Your task to perform on an android device: delete a single message in the gmail app Image 0: 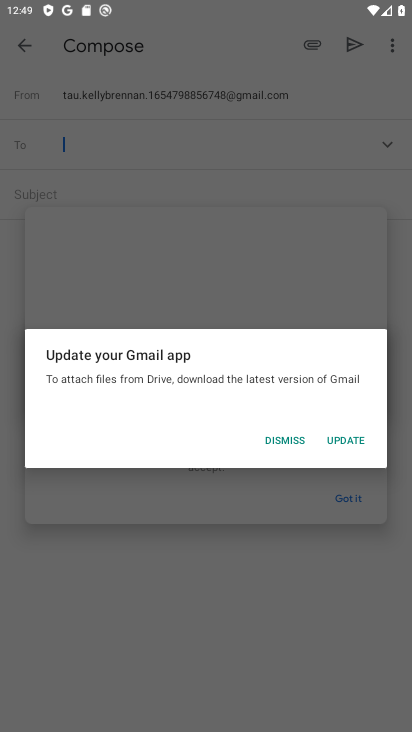
Step 0: press home button
Your task to perform on an android device: delete a single message in the gmail app Image 1: 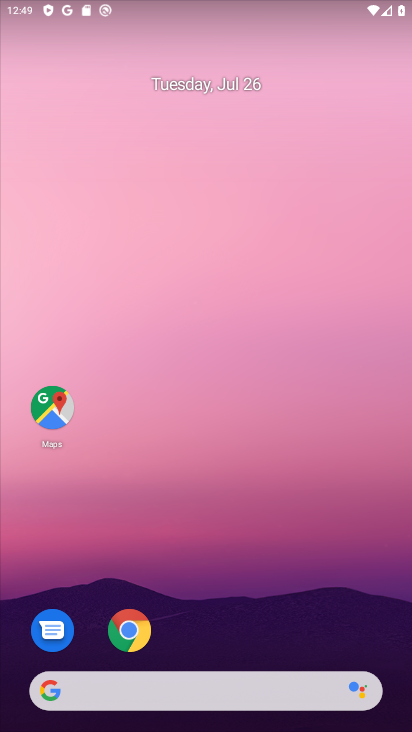
Step 1: drag from (200, 284) to (200, 61)
Your task to perform on an android device: delete a single message in the gmail app Image 2: 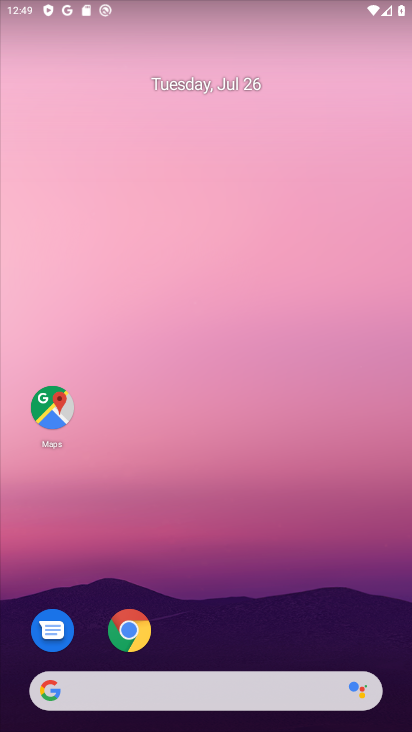
Step 2: drag from (206, 318) to (224, 110)
Your task to perform on an android device: delete a single message in the gmail app Image 3: 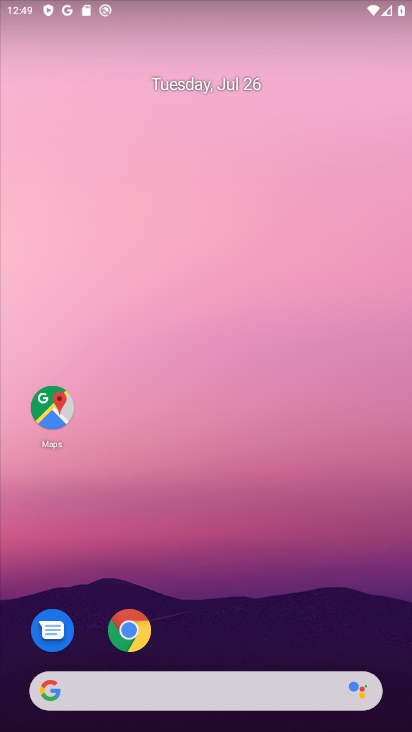
Step 3: drag from (201, 618) to (233, 85)
Your task to perform on an android device: delete a single message in the gmail app Image 4: 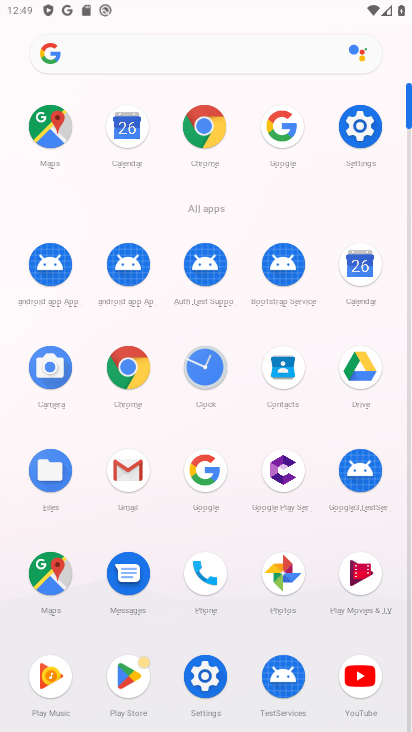
Step 4: click (130, 482)
Your task to perform on an android device: delete a single message in the gmail app Image 5: 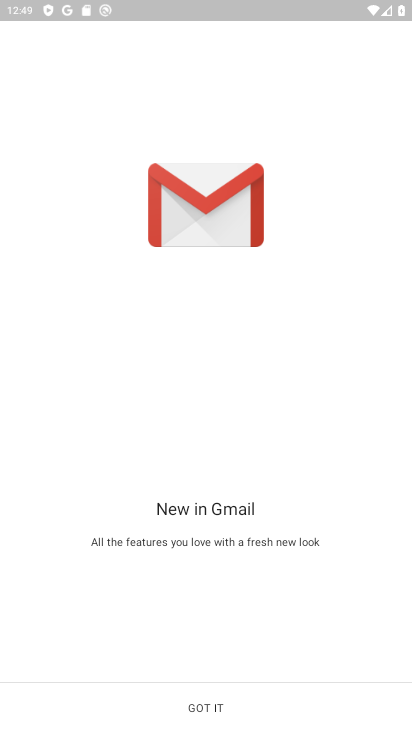
Step 5: click (216, 699)
Your task to perform on an android device: delete a single message in the gmail app Image 6: 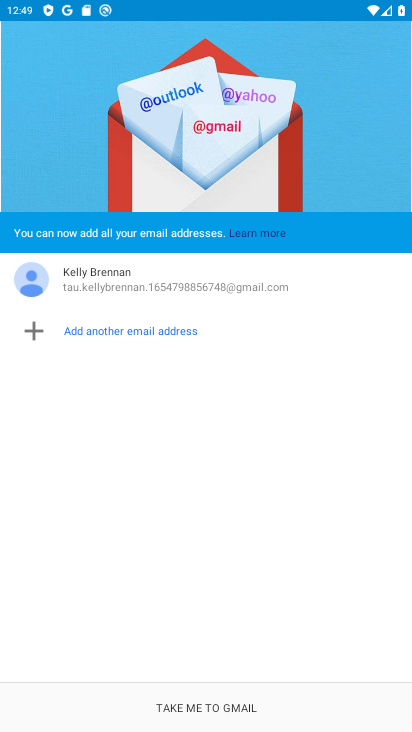
Step 6: click (216, 699)
Your task to perform on an android device: delete a single message in the gmail app Image 7: 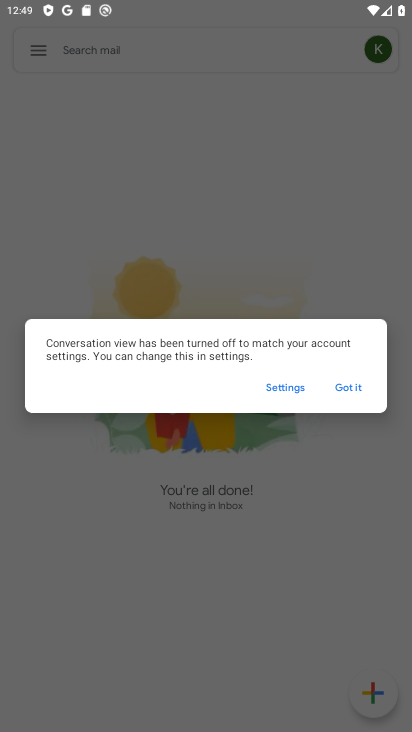
Step 7: click (353, 384)
Your task to perform on an android device: delete a single message in the gmail app Image 8: 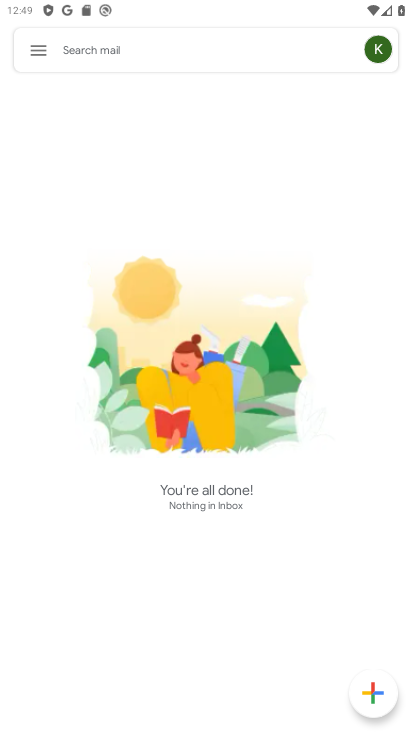
Step 8: click (37, 42)
Your task to perform on an android device: delete a single message in the gmail app Image 9: 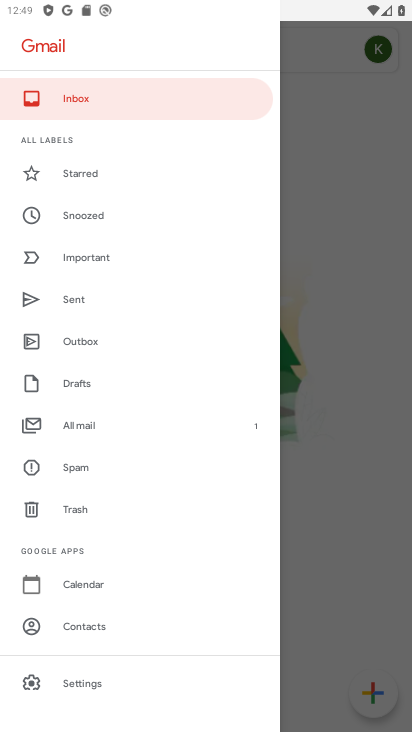
Step 9: click (89, 430)
Your task to perform on an android device: delete a single message in the gmail app Image 10: 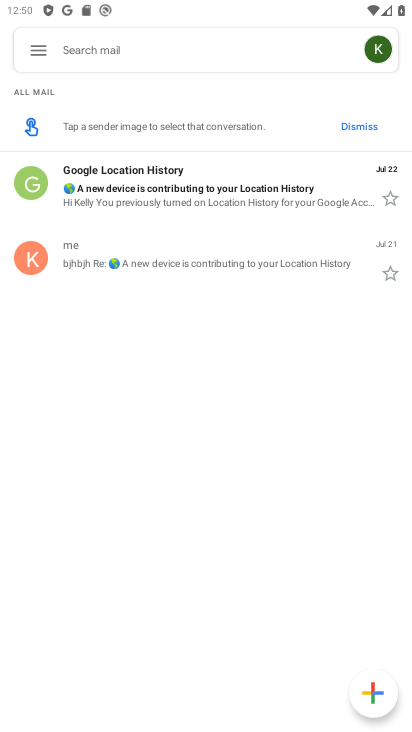
Step 10: click (235, 189)
Your task to perform on an android device: delete a single message in the gmail app Image 11: 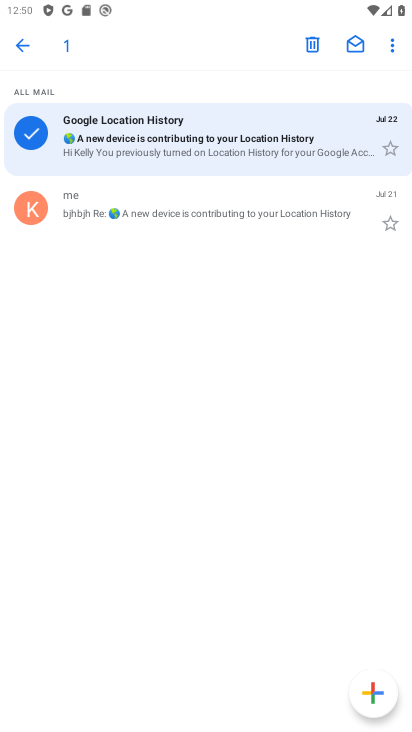
Step 11: click (311, 47)
Your task to perform on an android device: delete a single message in the gmail app Image 12: 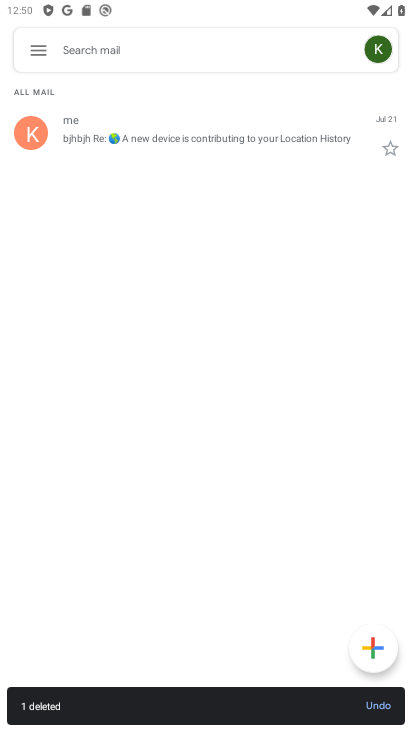
Step 12: task complete